Your task to perform on an android device: Open Chrome and go to settings Image 0: 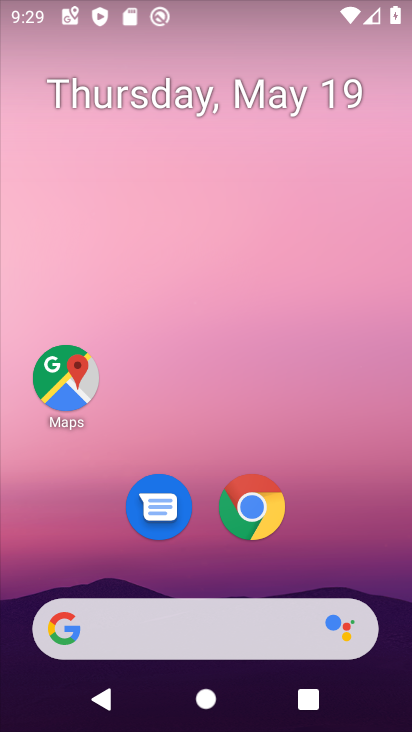
Step 0: click (253, 509)
Your task to perform on an android device: Open Chrome and go to settings Image 1: 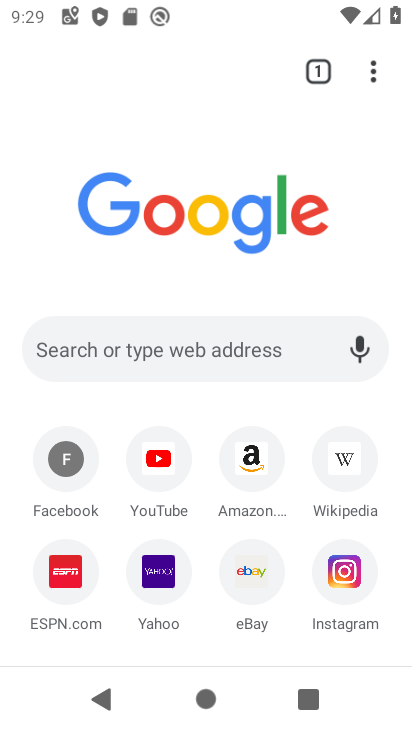
Step 1: click (370, 74)
Your task to perform on an android device: Open Chrome and go to settings Image 2: 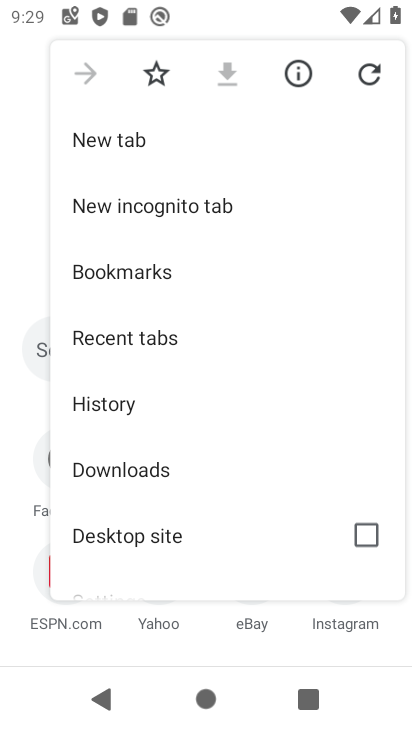
Step 2: drag from (155, 524) to (253, 128)
Your task to perform on an android device: Open Chrome and go to settings Image 3: 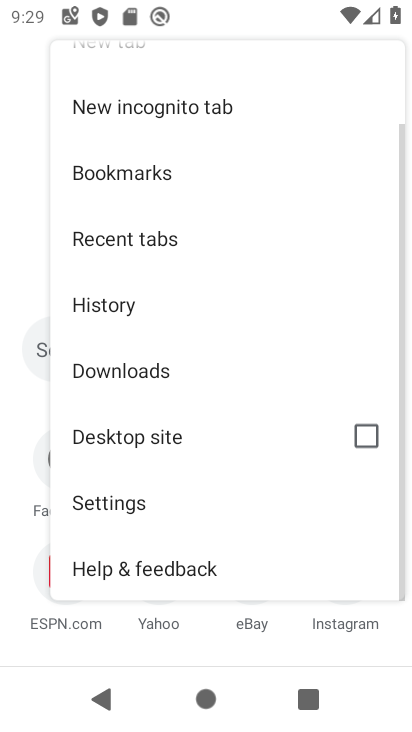
Step 3: click (115, 512)
Your task to perform on an android device: Open Chrome and go to settings Image 4: 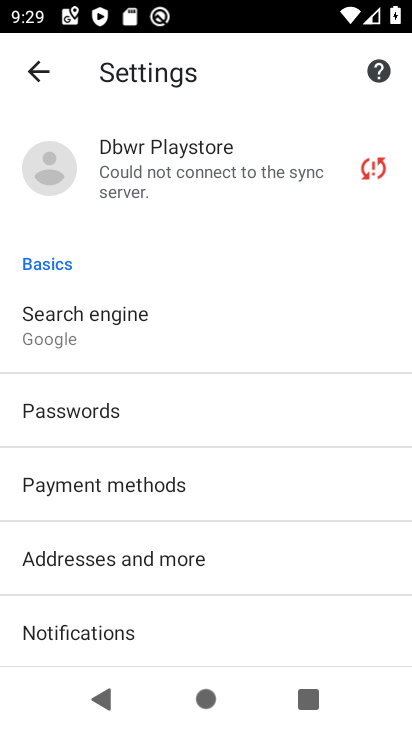
Step 4: task complete